Your task to perform on an android device: add a contact Image 0: 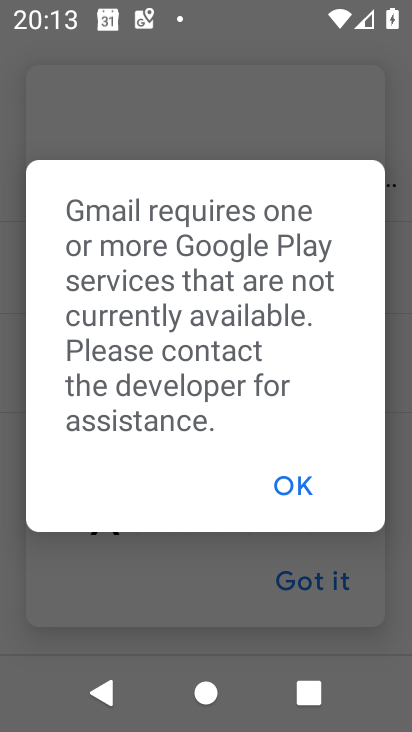
Step 0: press home button
Your task to perform on an android device: add a contact Image 1: 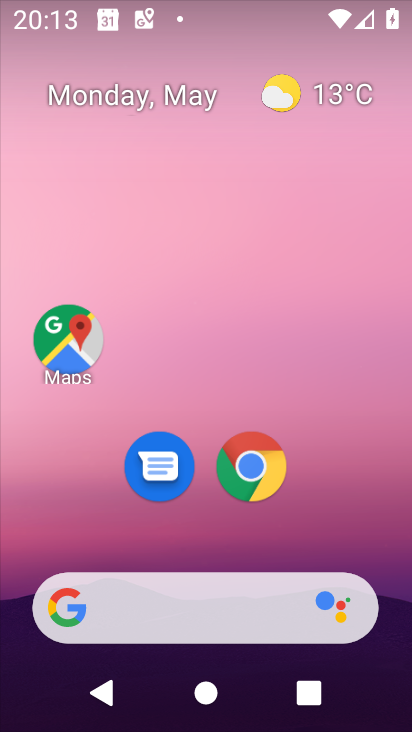
Step 1: drag from (300, 544) to (348, 231)
Your task to perform on an android device: add a contact Image 2: 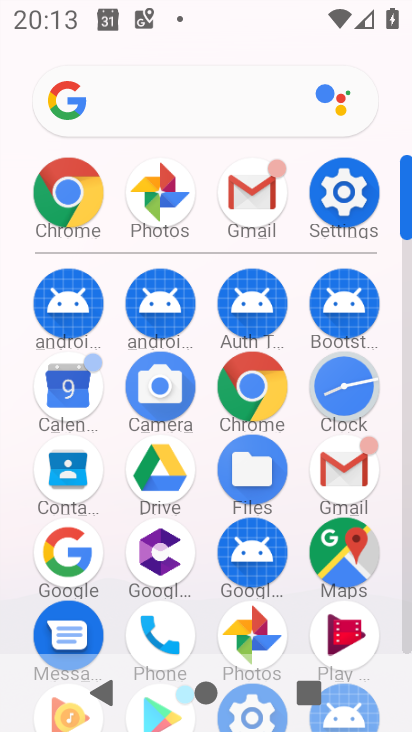
Step 2: click (154, 613)
Your task to perform on an android device: add a contact Image 3: 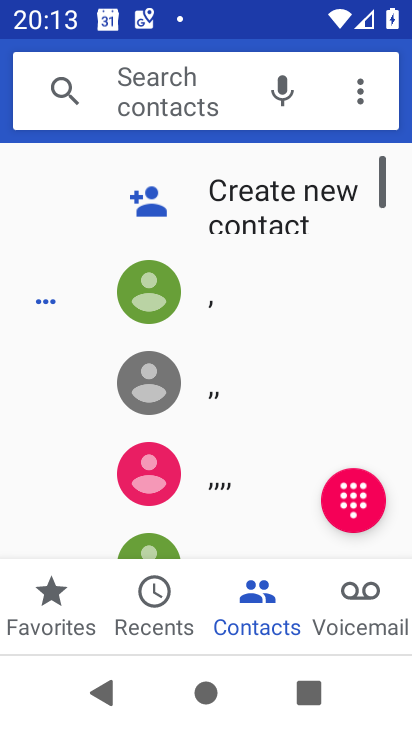
Step 3: click (250, 185)
Your task to perform on an android device: add a contact Image 4: 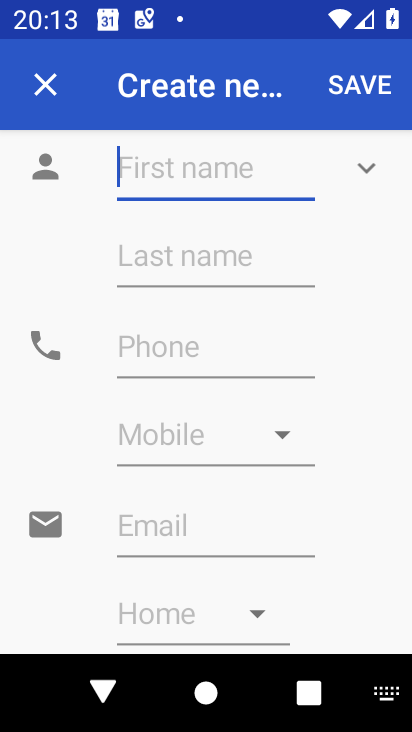
Step 4: type "iiuiuiuiuiuiui"
Your task to perform on an android device: add a contact Image 5: 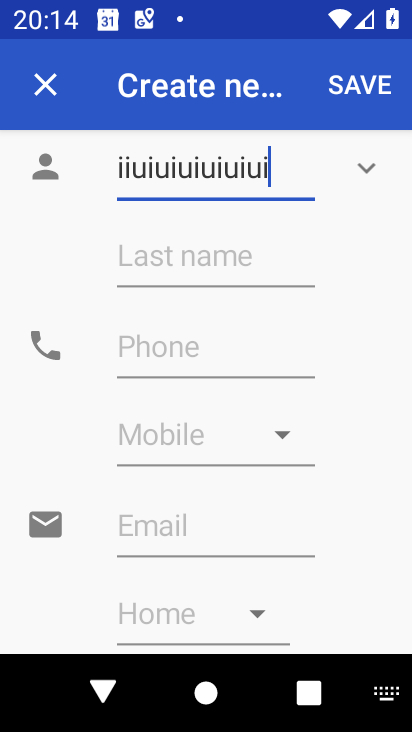
Step 5: click (169, 332)
Your task to perform on an android device: add a contact Image 6: 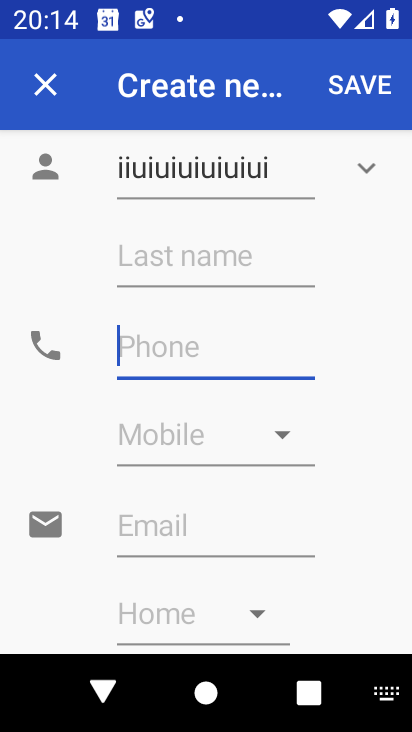
Step 6: type "0909090909"
Your task to perform on an android device: add a contact Image 7: 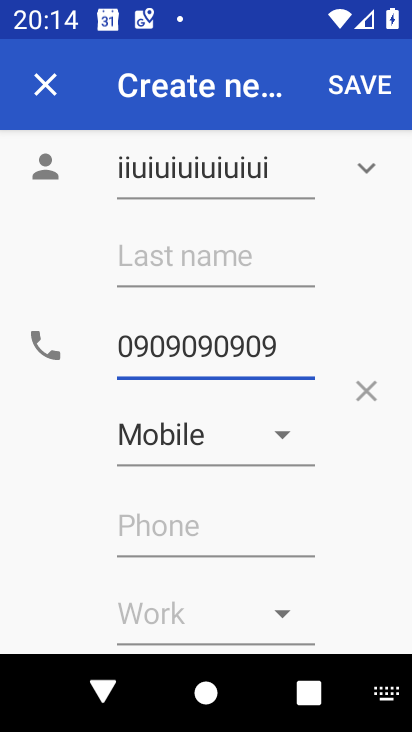
Step 7: click (368, 90)
Your task to perform on an android device: add a contact Image 8: 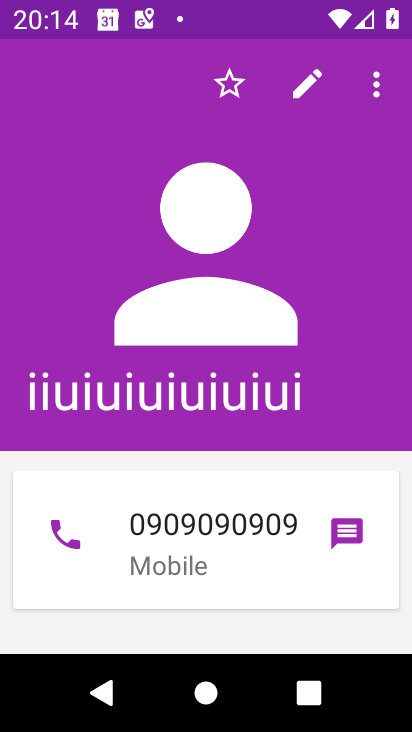
Step 8: task complete